Your task to perform on an android device: turn off translation in the chrome app Image 0: 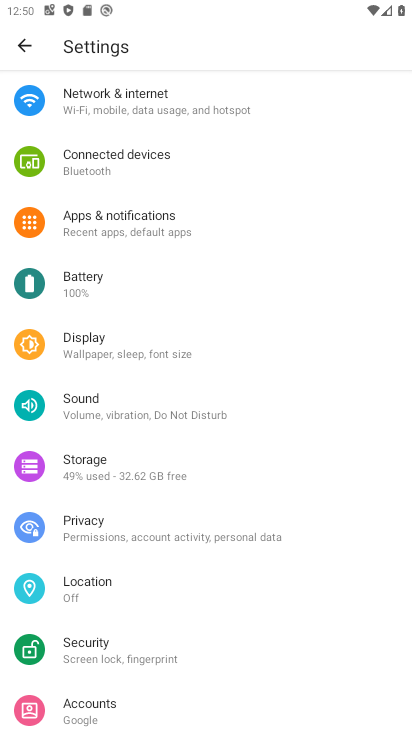
Step 0: press home button
Your task to perform on an android device: turn off translation in the chrome app Image 1: 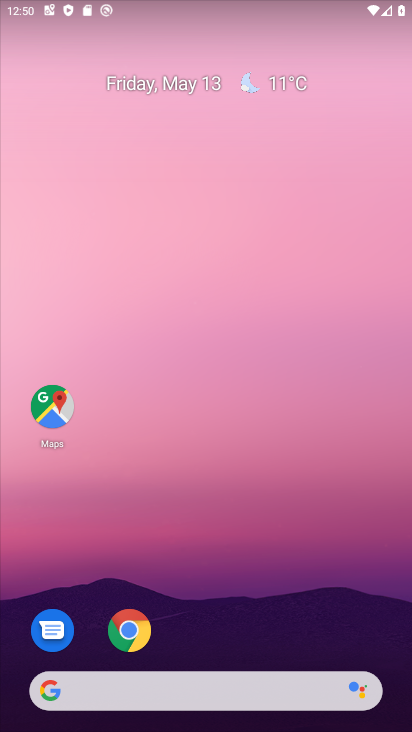
Step 1: click (133, 633)
Your task to perform on an android device: turn off translation in the chrome app Image 2: 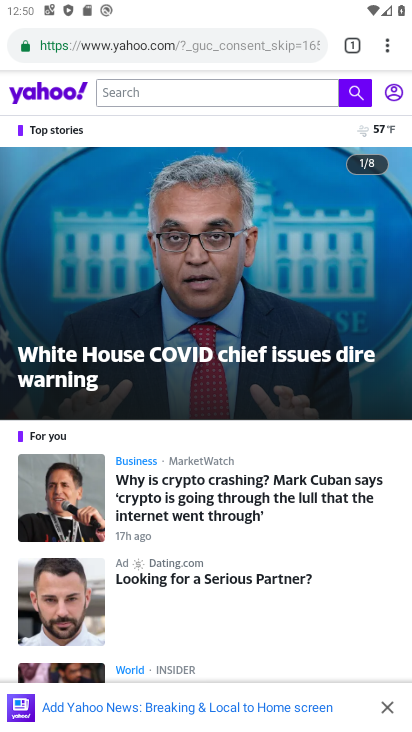
Step 2: drag from (388, 43) to (234, 554)
Your task to perform on an android device: turn off translation in the chrome app Image 3: 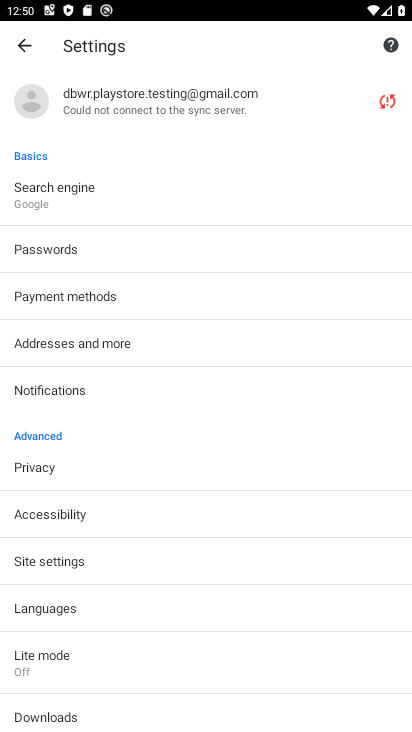
Step 3: click (23, 613)
Your task to perform on an android device: turn off translation in the chrome app Image 4: 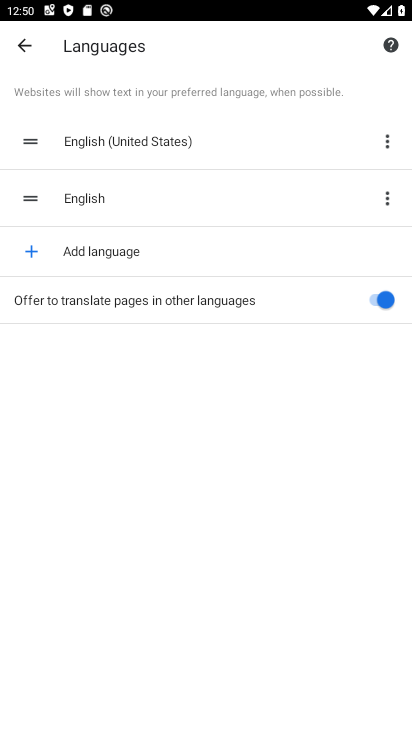
Step 4: click (386, 303)
Your task to perform on an android device: turn off translation in the chrome app Image 5: 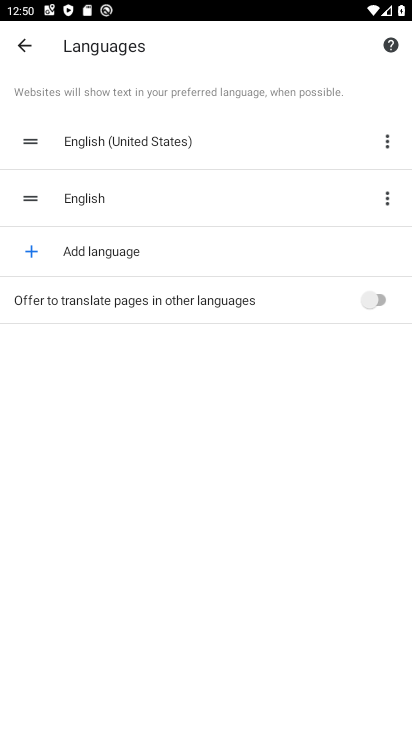
Step 5: task complete